Your task to perform on an android device: turn on showing notifications on the lock screen Image 0: 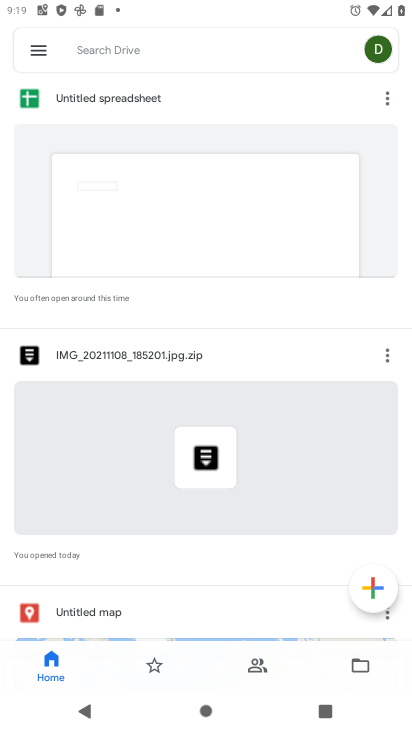
Step 0: press home button
Your task to perform on an android device: turn on showing notifications on the lock screen Image 1: 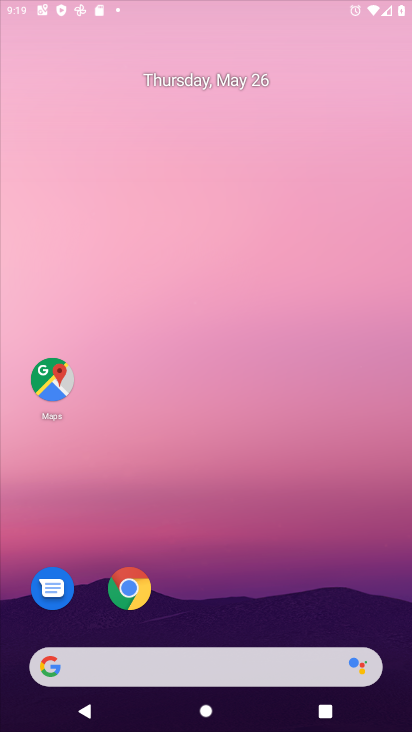
Step 1: drag from (387, 630) to (287, 83)
Your task to perform on an android device: turn on showing notifications on the lock screen Image 2: 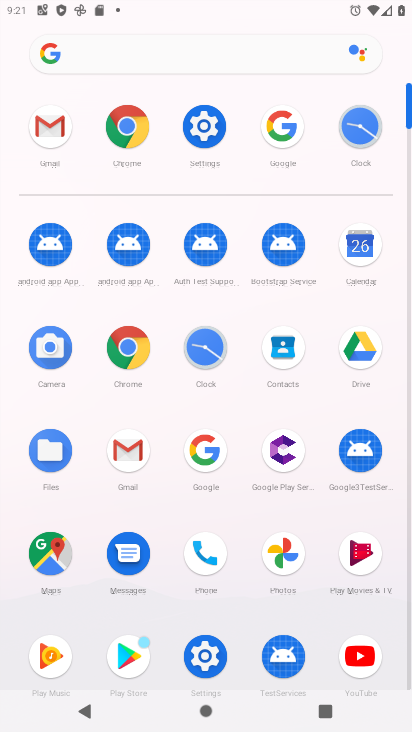
Step 2: click (213, 645)
Your task to perform on an android device: turn on showing notifications on the lock screen Image 3: 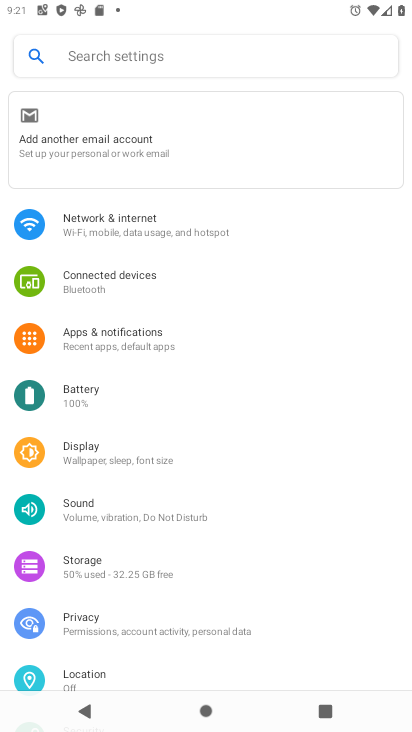
Step 3: click (143, 341)
Your task to perform on an android device: turn on showing notifications on the lock screen Image 4: 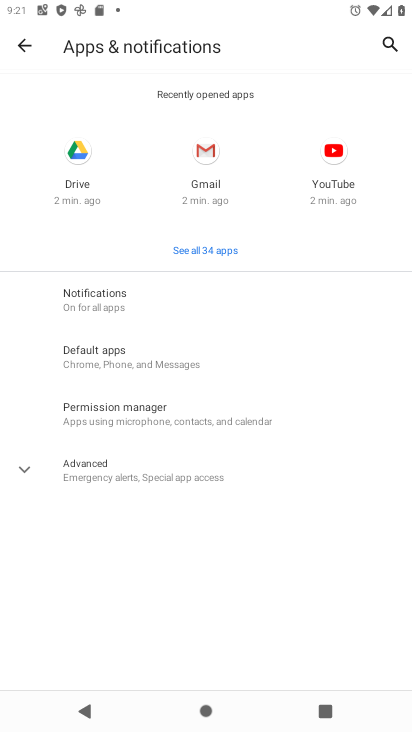
Step 4: click (121, 314)
Your task to perform on an android device: turn on showing notifications on the lock screen Image 5: 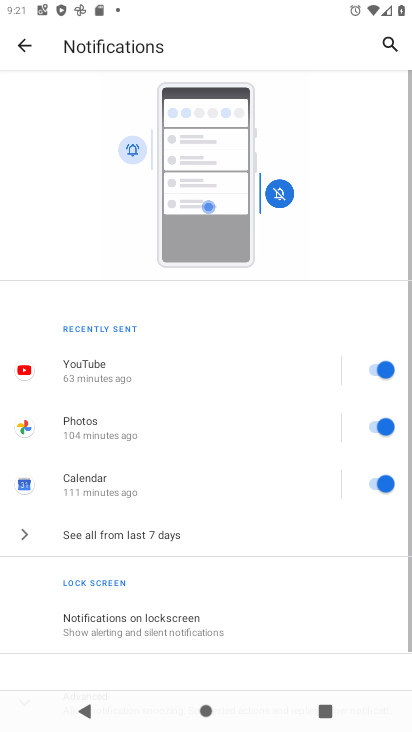
Step 5: click (188, 618)
Your task to perform on an android device: turn on showing notifications on the lock screen Image 6: 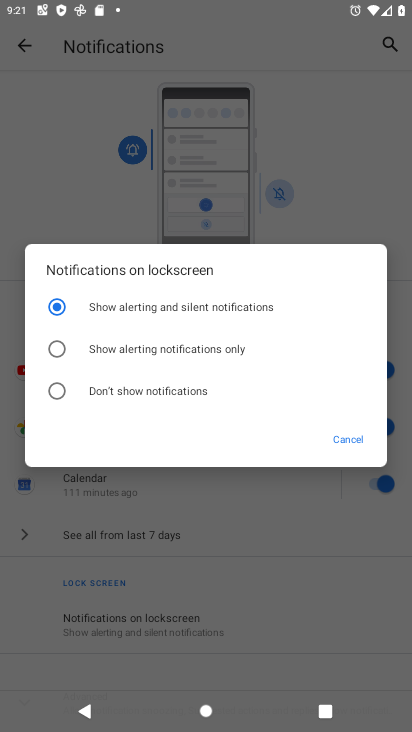
Step 6: task complete